Your task to perform on an android device: turn on location history Image 0: 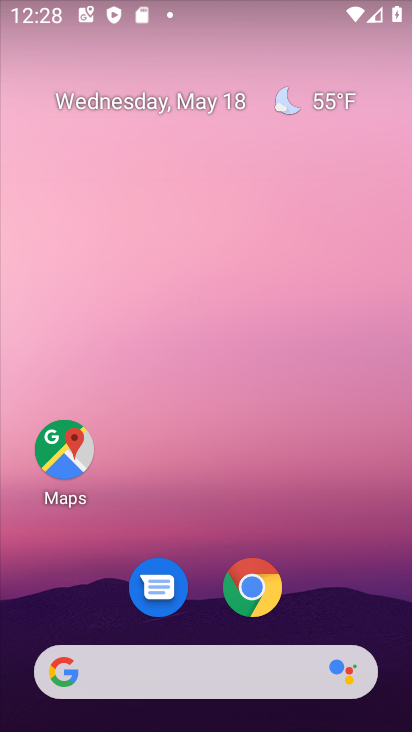
Step 0: drag from (304, 598) to (283, 141)
Your task to perform on an android device: turn on location history Image 1: 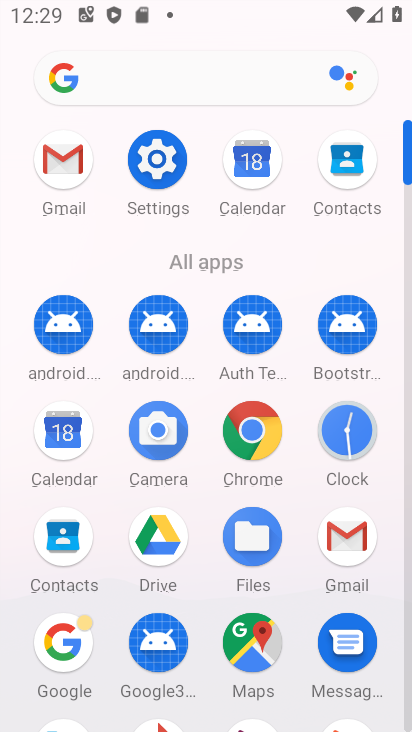
Step 1: click (154, 154)
Your task to perform on an android device: turn on location history Image 2: 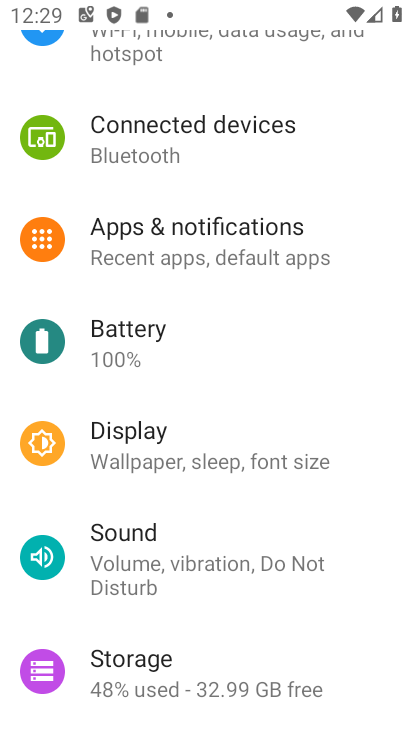
Step 2: drag from (213, 555) to (184, 312)
Your task to perform on an android device: turn on location history Image 3: 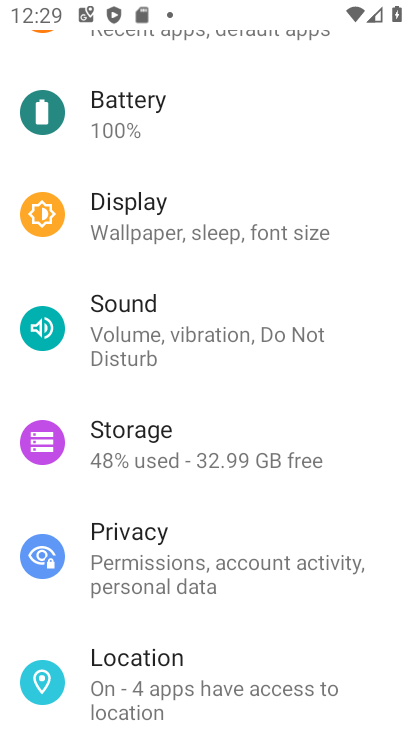
Step 3: click (169, 670)
Your task to perform on an android device: turn on location history Image 4: 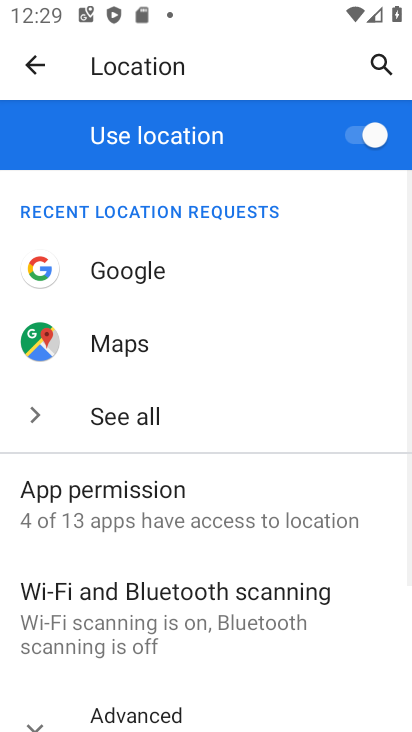
Step 4: drag from (191, 660) to (106, 231)
Your task to perform on an android device: turn on location history Image 5: 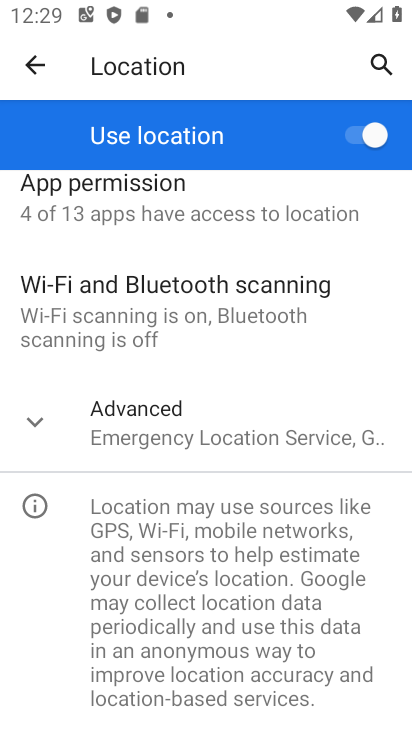
Step 5: click (148, 412)
Your task to perform on an android device: turn on location history Image 6: 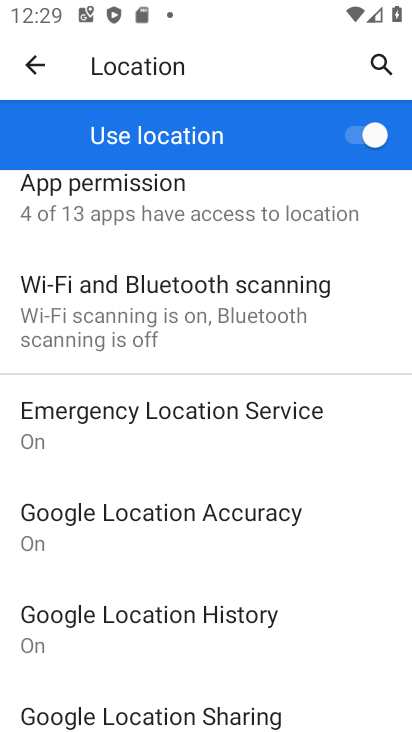
Step 6: click (224, 622)
Your task to perform on an android device: turn on location history Image 7: 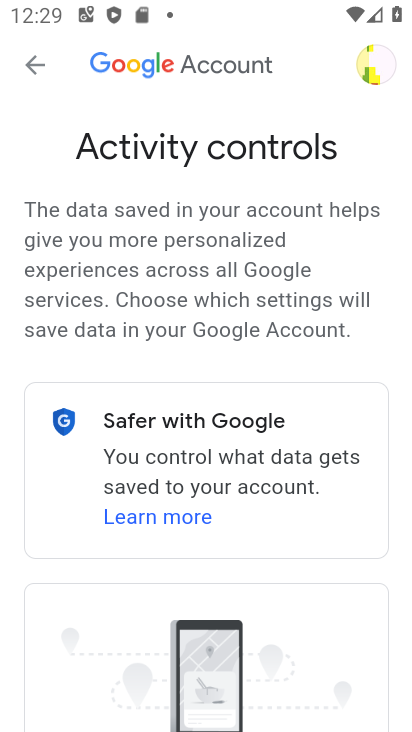
Step 7: drag from (271, 570) to (254, 240)
Your task to perform on an android device: turn on location history Image 8: 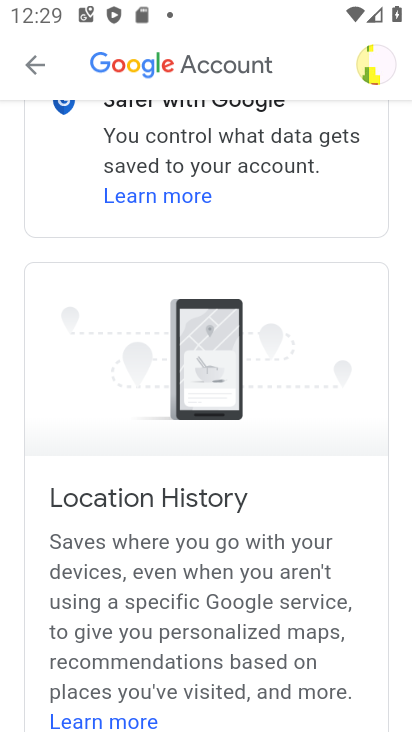
Step 8: drag from (250, 510) to (242, 187)
Your task to perform on an android device: turn on location history Image 9: 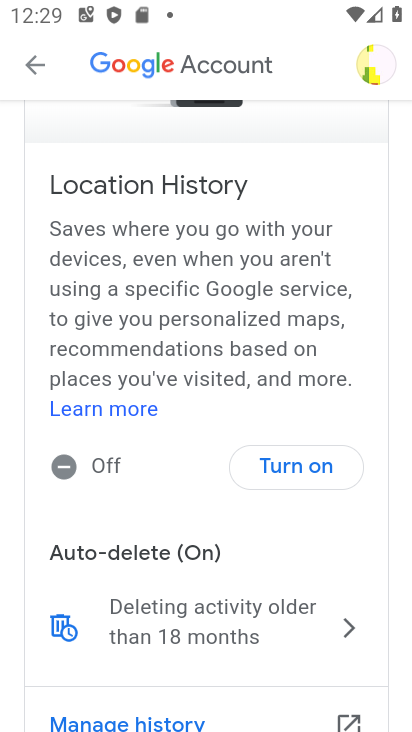
Step 9: click (284, 467)
Your task to perform on an android device: turn on location history Image 10: 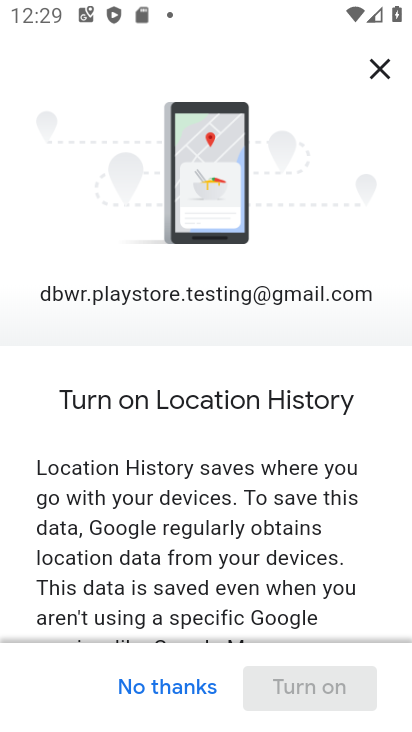
Step 10: drag from (245, 535) to (176, 130)
Your task to perform on an android device: turn on location history Image 11: 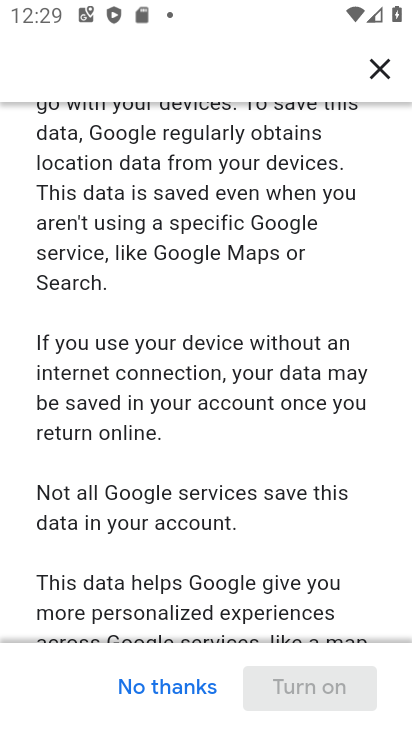
Step 11: drag from (242, 526) to (225, 124)
Your task to perform on an android device: turn on location history Image 12: 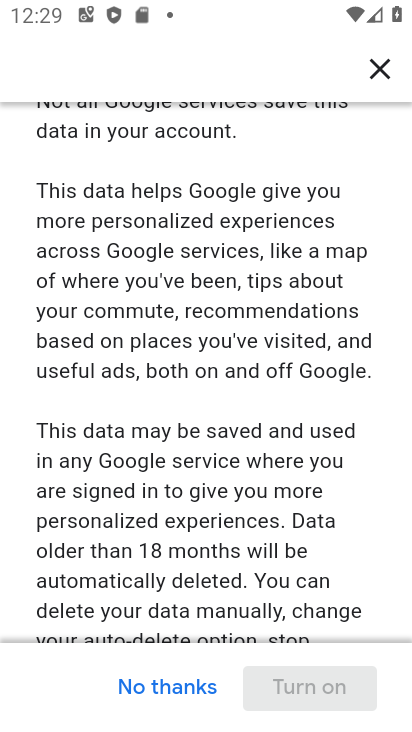
Step 12: drag from (251, 554) to (197, 212)
Your task to perform on an android device: turn on location history Image 13: 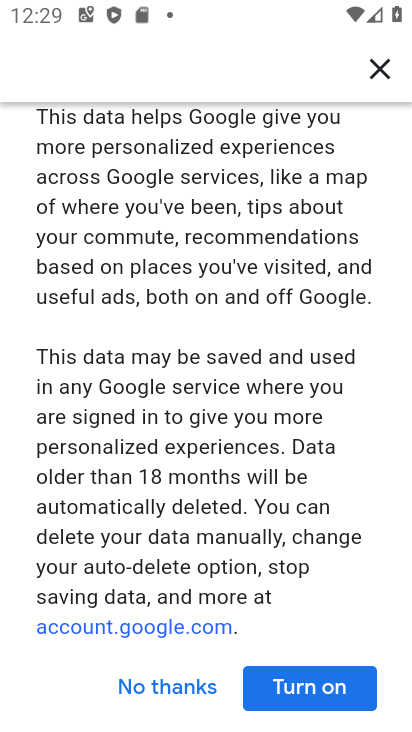
Step 13: click (303, 689)
Your task to perform on an android device: turn on location history Image 14: 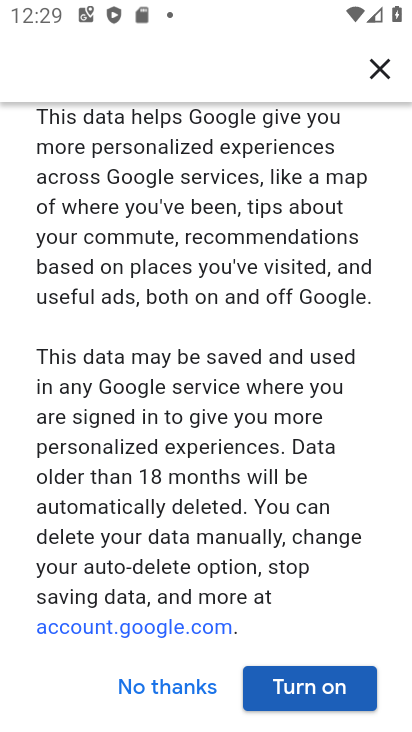
Step 14: click (300, 687)
Your task to perform on an android device: turn on location history Image 15: 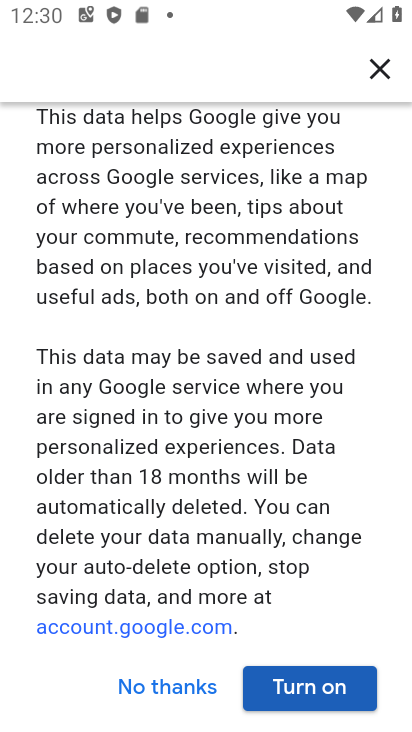
Step 15: click (299, 687)
Your task to perform on an android device: turn on location history Image 16: 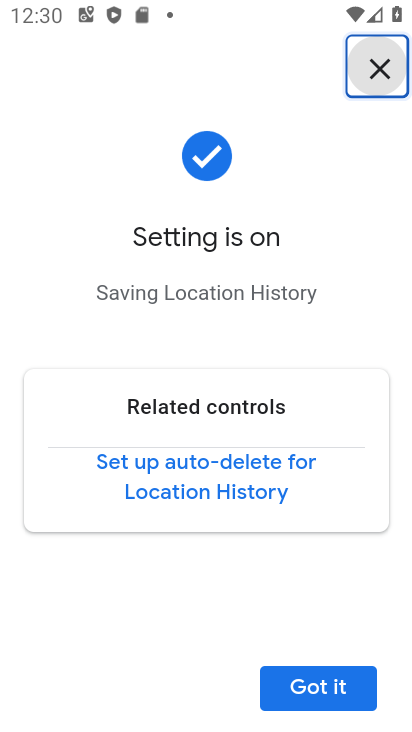
Step 16: click (269, 694)
Your task to perform on an android device: turn on location history Image 17: 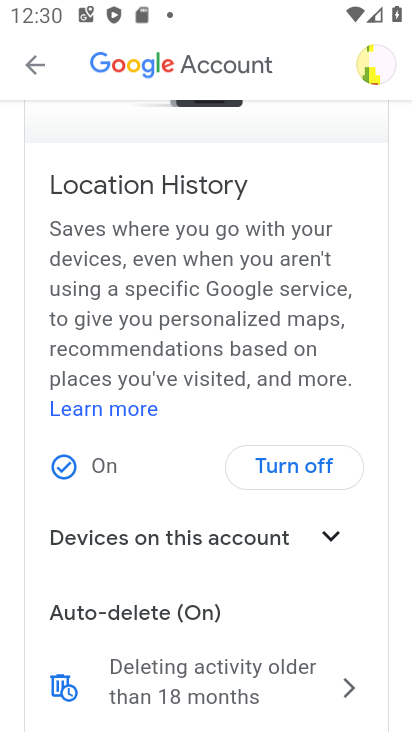
Step 17: task complete